Your task to perform on an android device: turn off picture-in-picture Image 0: 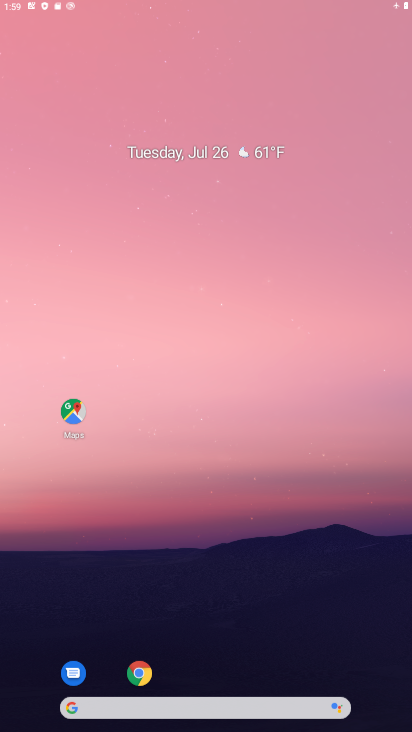
Step 0: drag from (372, 39) to (259, 556)
Your task to perform on an android device: turn off picture-in-picture Image 1: 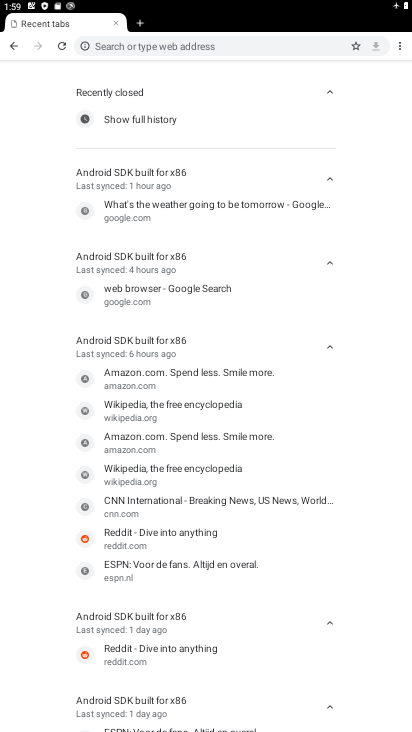
Step 1: drag from (345, 7) to (278, 544)
Your task to perform on an android device: turn off picture-in-picture Image 2: 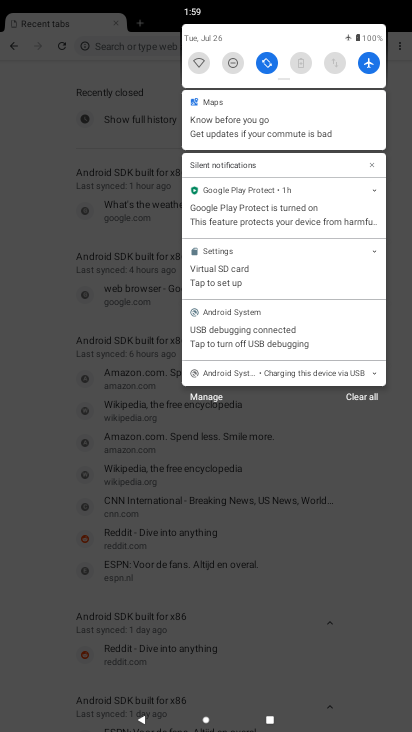
Step 2: press home button
Your task to perform on an android device: turn off picture-in-picture Image 3: 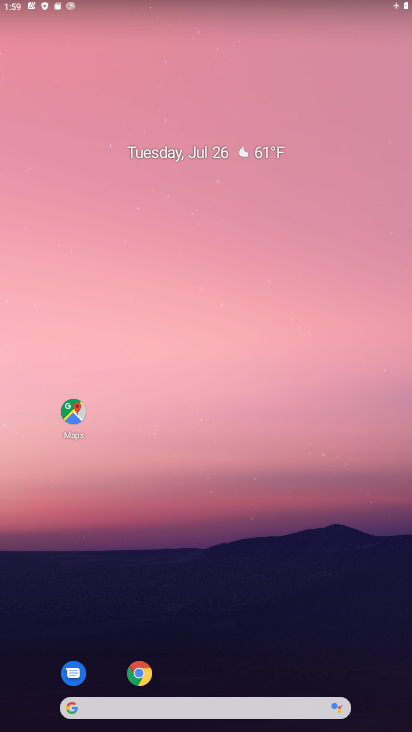
Step 3: drag from (222, 643) to (289, 124)
Your task to perform on an android device: turn off picture-in-picture Image 4: 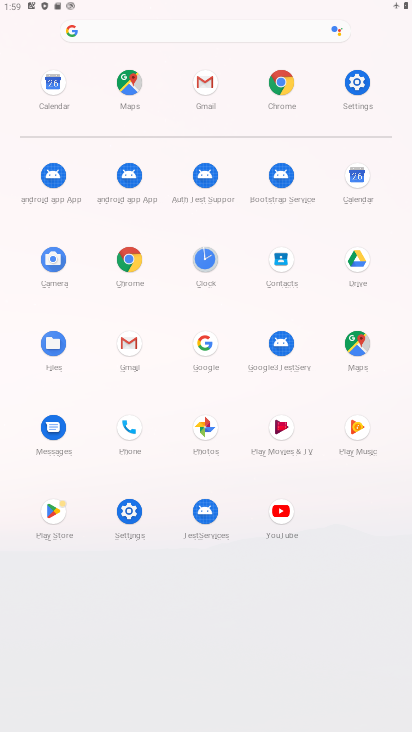
Step 4: click (353, 79)
Your task to perform on an android device: turn off picture-in-picture Image 5: 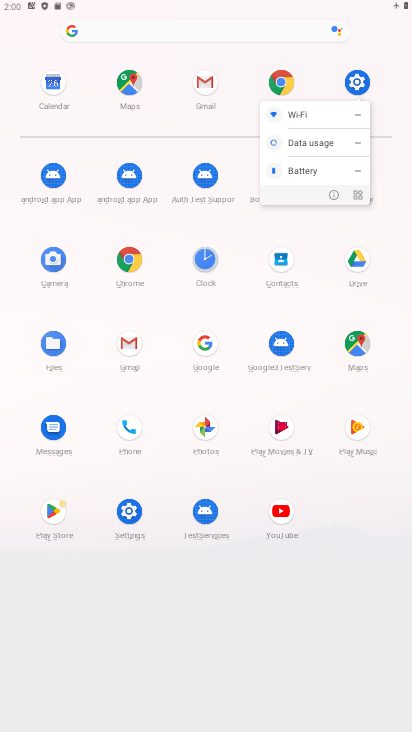
Step 5: click (334, 187)
Your task to perform on an android device: turn off picture-in-picture Image 6: 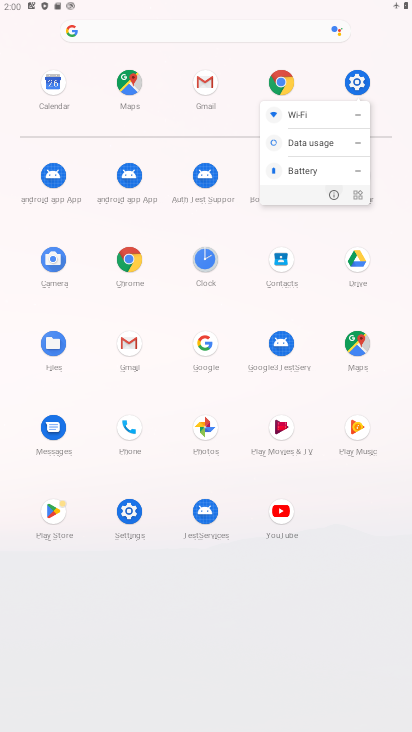
Step 6: click (334, 187)
Your task to perform on an android device: turn off picture-in-picture Image 7: 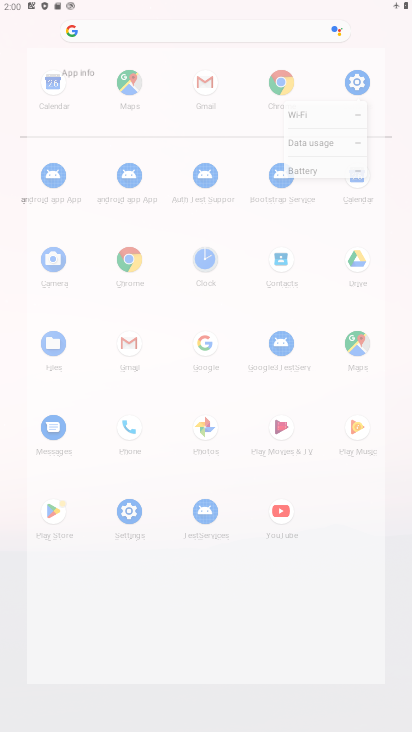
Step 7: click (334, 187)
Your task to perform on an android device: turn off picture-in-picture Image 8: 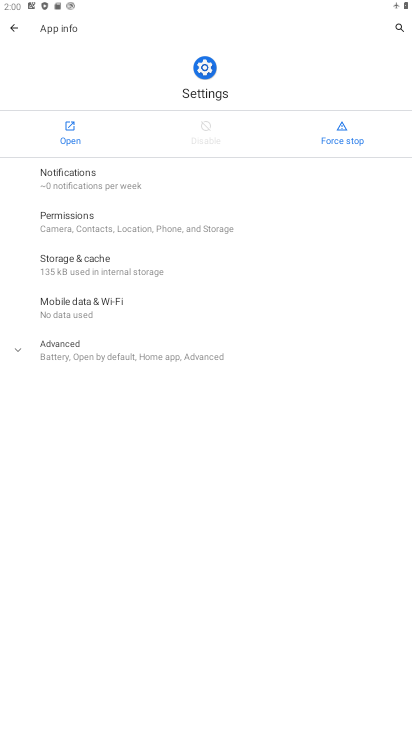
Step 8: click (62, 124)
Your task to perform on an android device: turn off picture-in-picture Image 9: 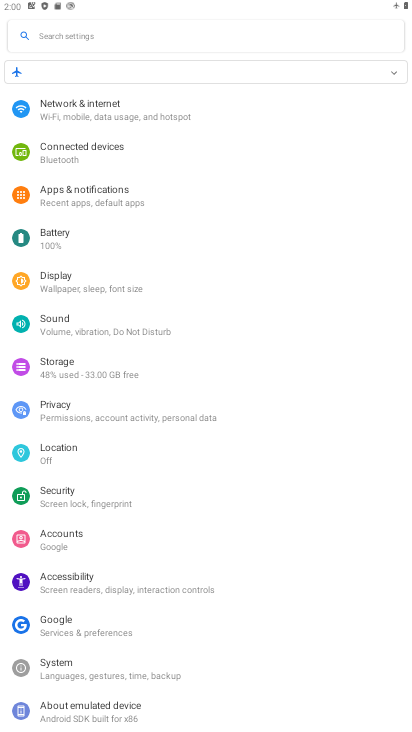
Step 9: click (135, 197)
Your task to perform on an android device: turn off picture-in-picture Image 10: 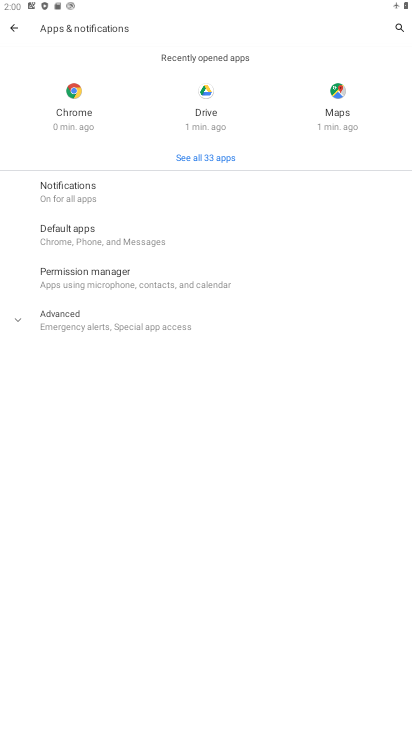
Step 10: click (112, 318)
Your task to perform on an android device: turn off picture-in-picture Image 11: 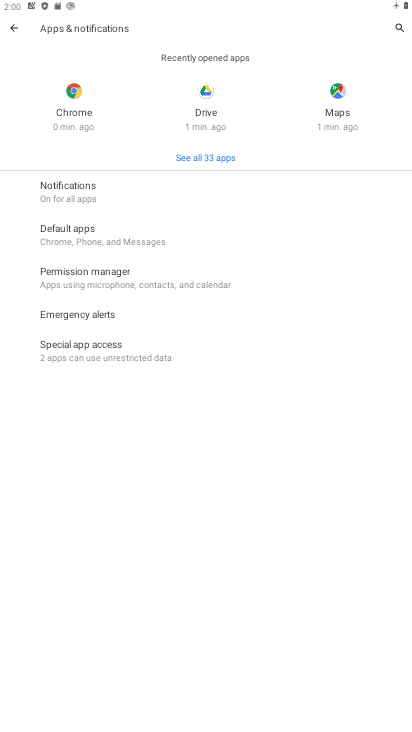
Step 11: click (90, 347)
Your task to perform on an android device: turn off picture-in-picture Image 12: 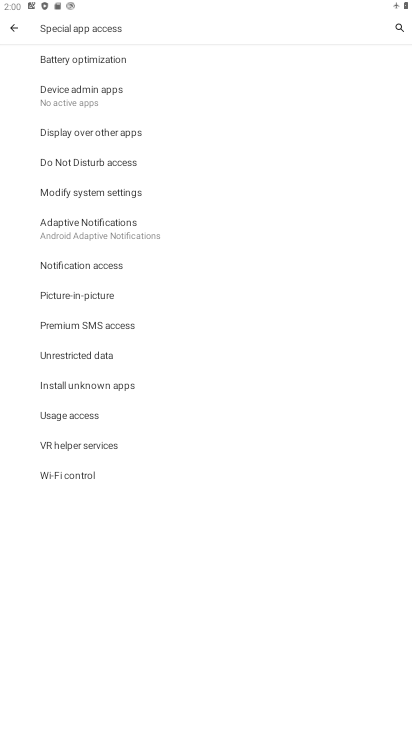
Step 12: click (115, 288)
Your task to perform on an android device: turn off picture-in-picture Image 13: 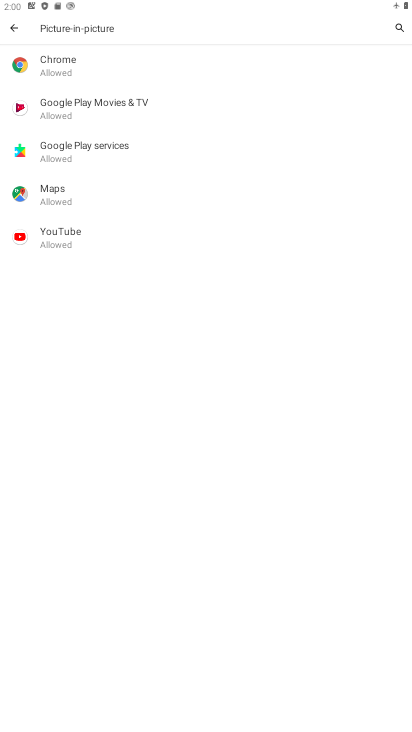
Step 13: task complete